Your task to perform on an android device: see tabs open on other devices in the chrome app Image 0: 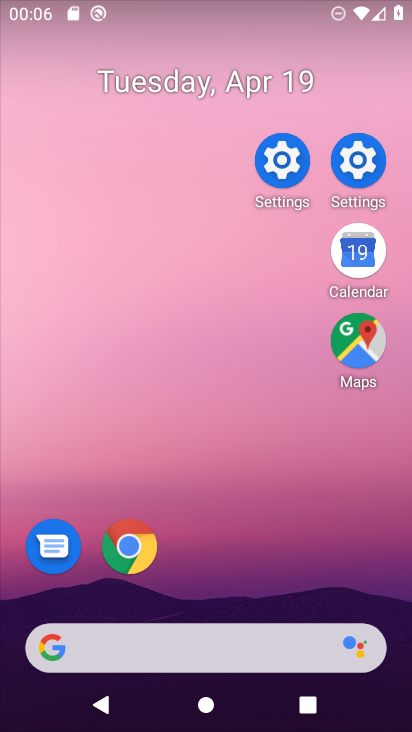
Step 0: drag from (215, 613) to (176, 257)
Your task to perform on an android device: see tabs open on other devices in the chrome app Image 1: 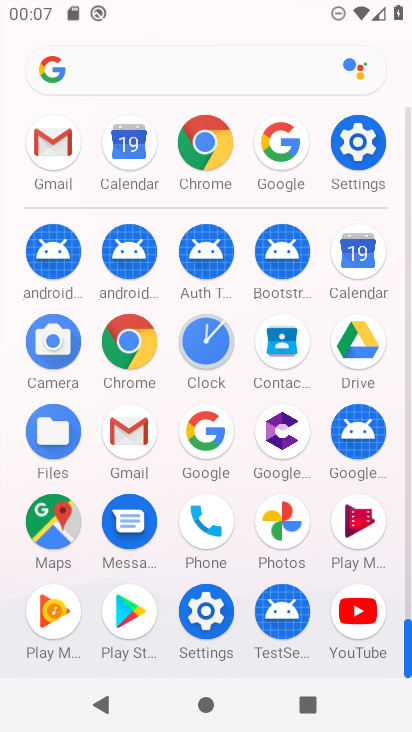
Step 1: click (202, 150)
Your task to perform on an android device: see tabs open on other devices in the chrome app Image 2: 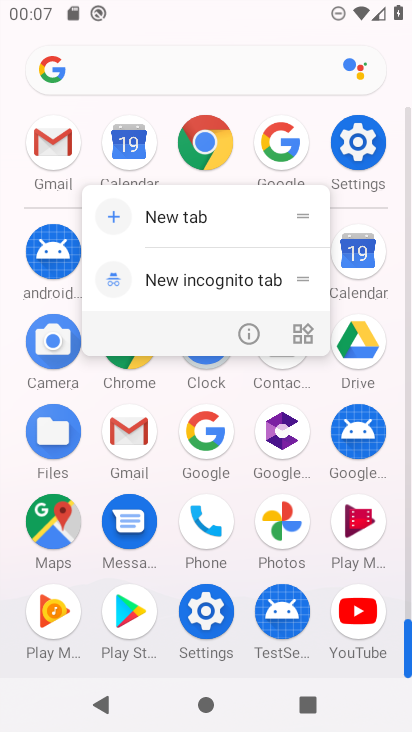
Step 2: click (202, 150)
Your task to perform on an android device: see tabs open on other devices in the chrome app Image 3: 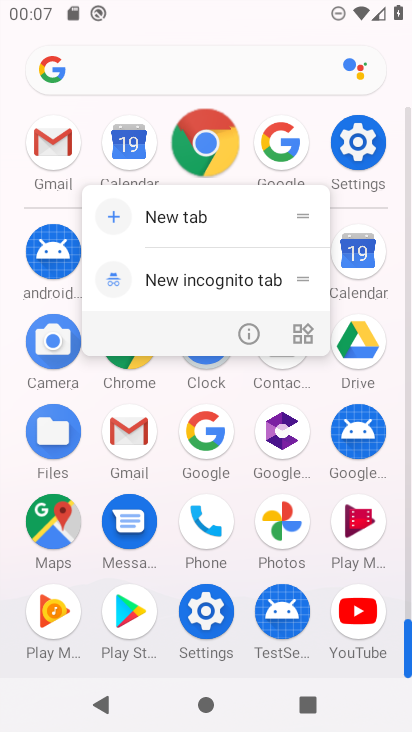
Step 3: click (202, 150)
Your task to perform on an android device: see tabs open on other devices in the chrome app Image 4: 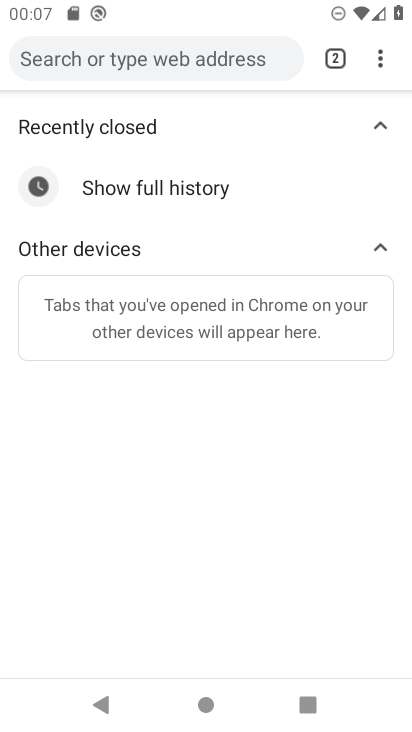
Step 4: click (383, 54)
Your task to perform on an android device: see tabs open on other devices in the chrome app Image 5: 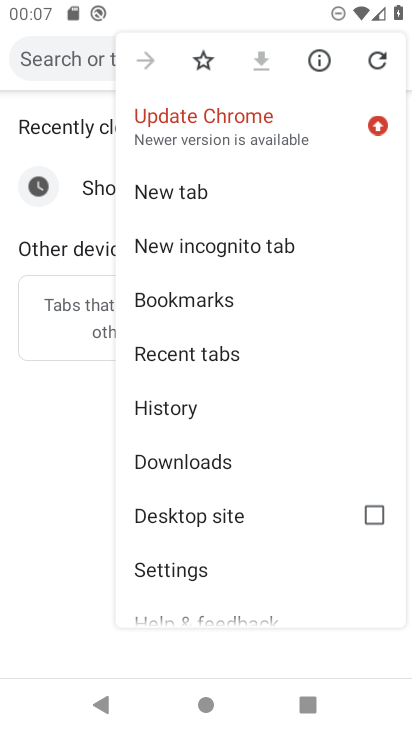
Step 5: click (176, 345)
Your task to perform on an android device: see tabs open on other devices in the chrome app Image 6: 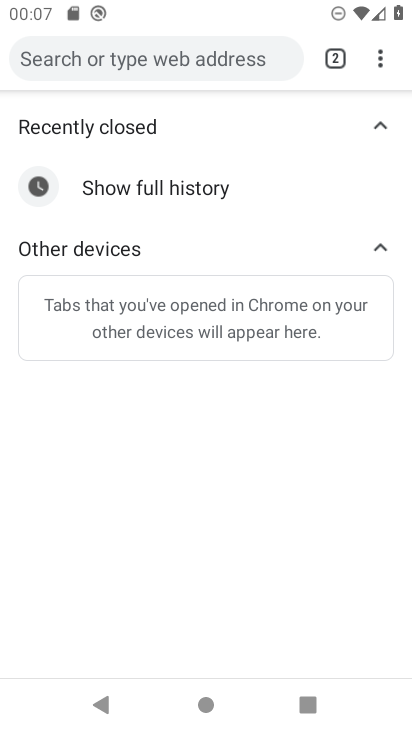
Step 6: task complete